Your task to perform on an android device: delete a single message in the gmail app Image 0: 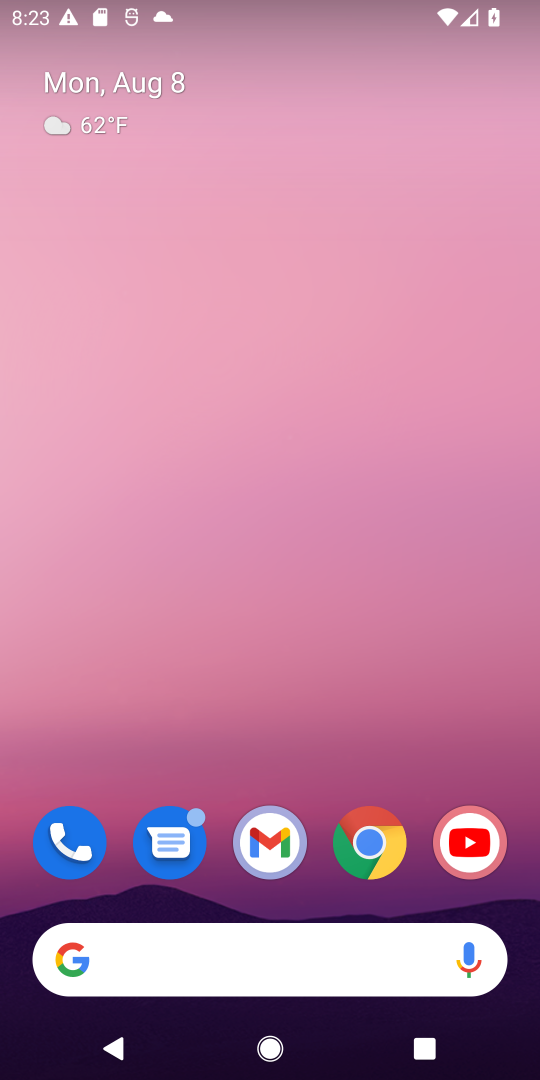
Step 0: drag from (309, 746) to (411, 0)
Your task to perform on an android device: delete a single message in the gmail app Image 1: 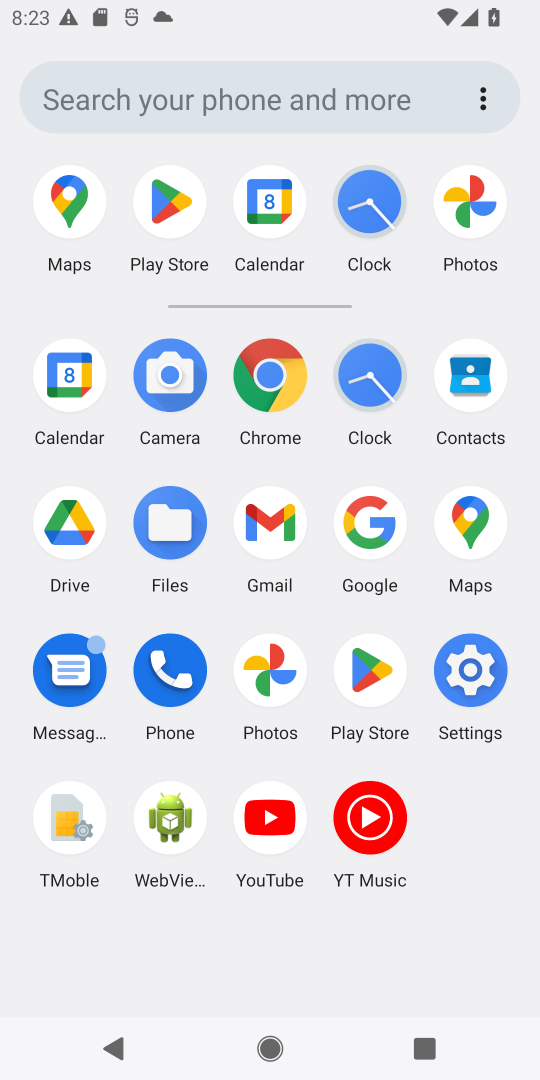
Step 1: click (270, 519)
Your task to perform on an android device: delete a single message in the gmail app Image 2: 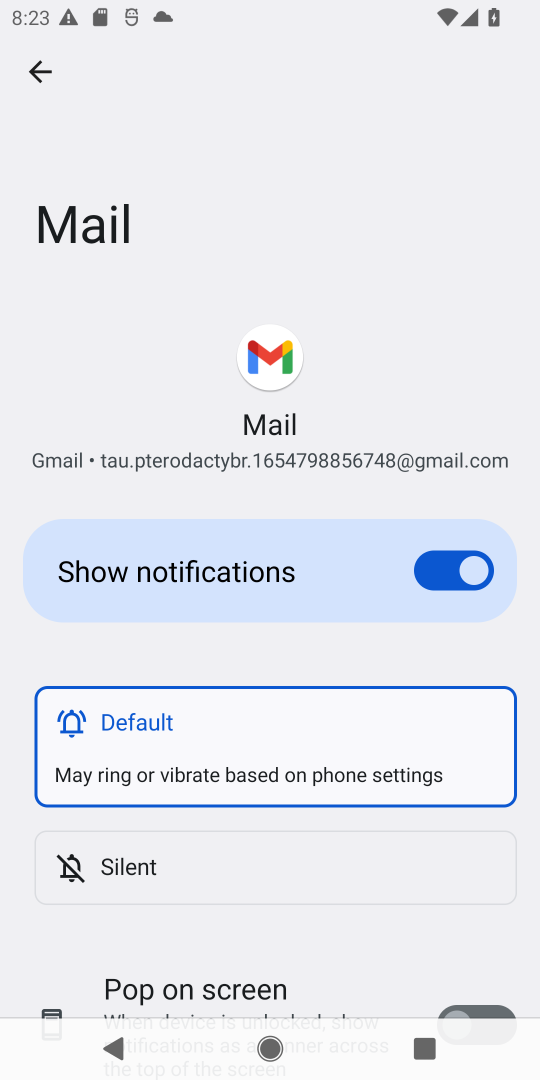
Step 2: click (34, 63)
Your task to perform on an android device: delete a single message in the gmail app Image 3: 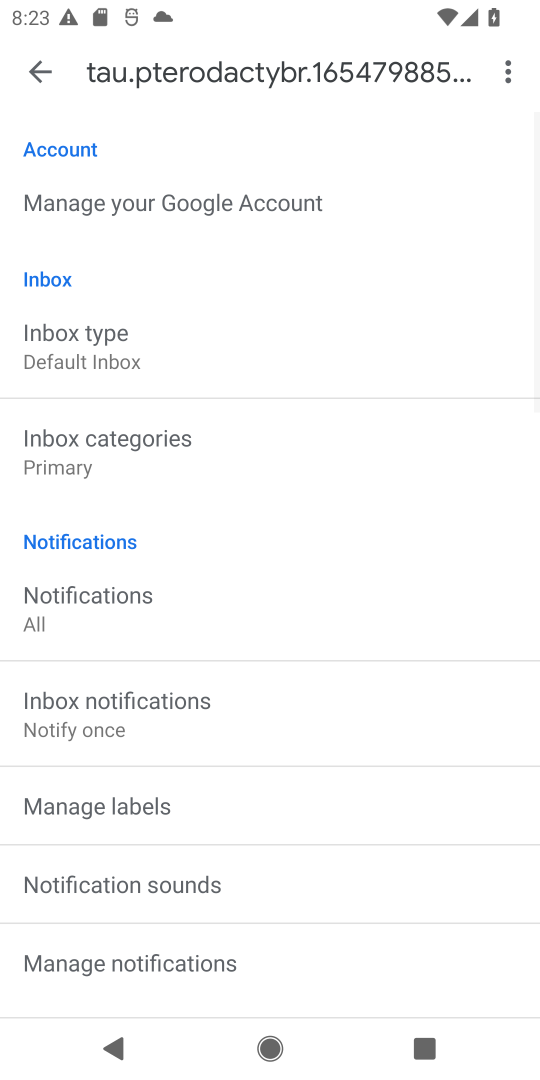
Step 3: click (34, 63)
Your task to perform on an android device: delete a single message in the gmail app Image 4: 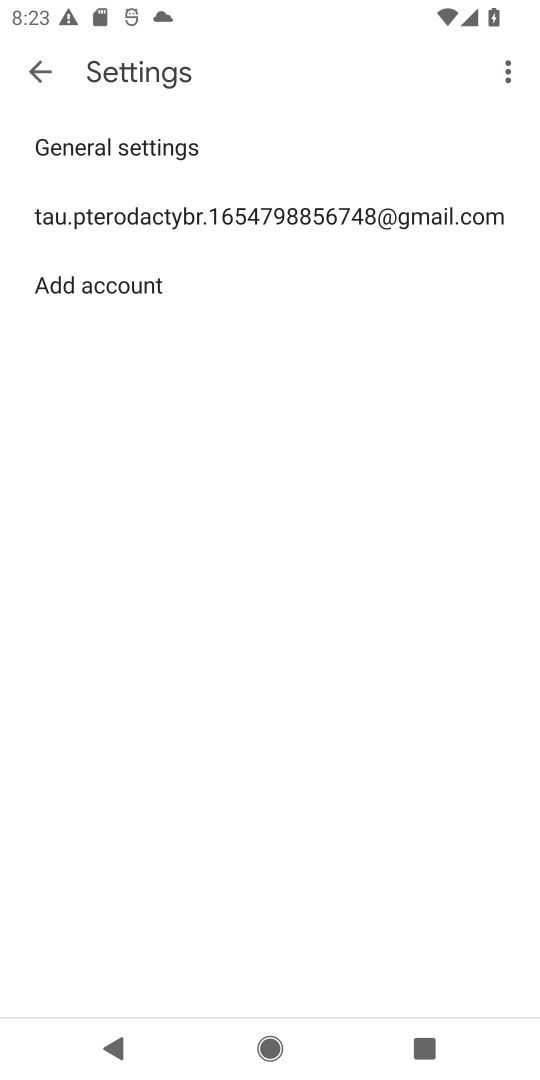
Step 4: click (34, 63)
Your task to perform on an android device: delete a single message in the gmail app Image 5: 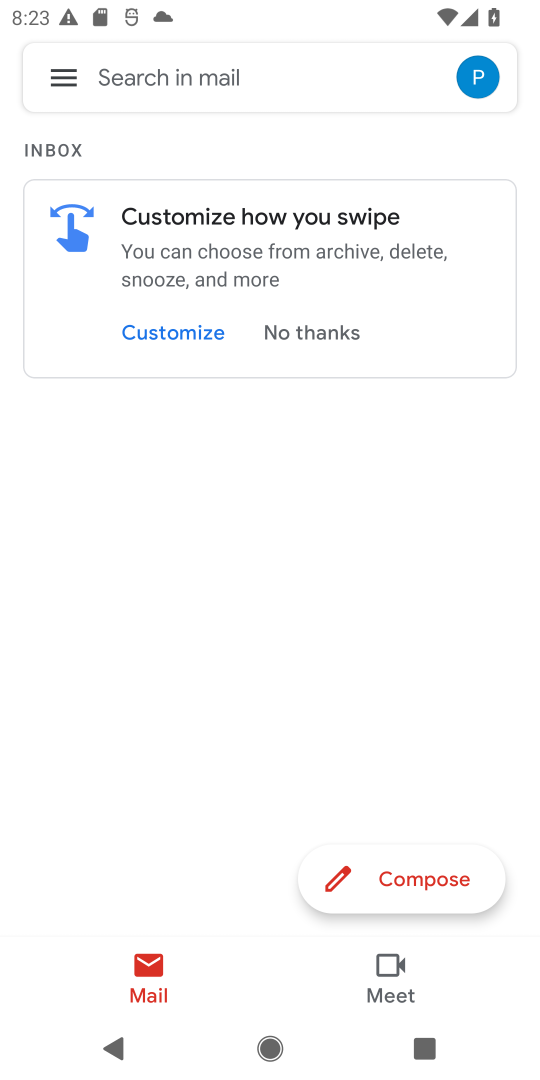
Step 5: click (63, 63)
Your task to perform on an android device: delete a single message in the gmail app Image 6: 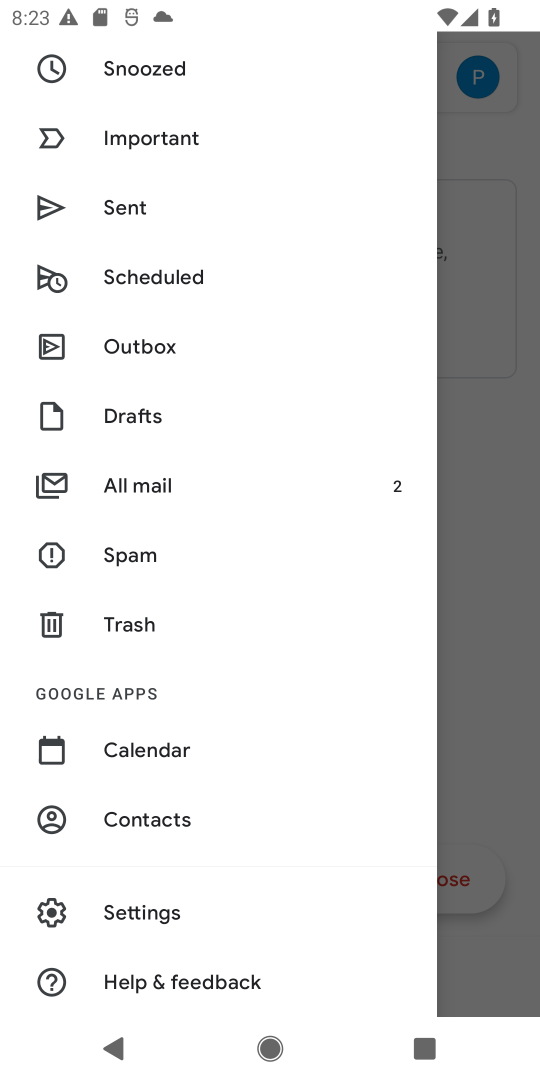
Step 6: click (171, 481)
Your task to perform on an android device: delete a single message in the gmail app Image 7: 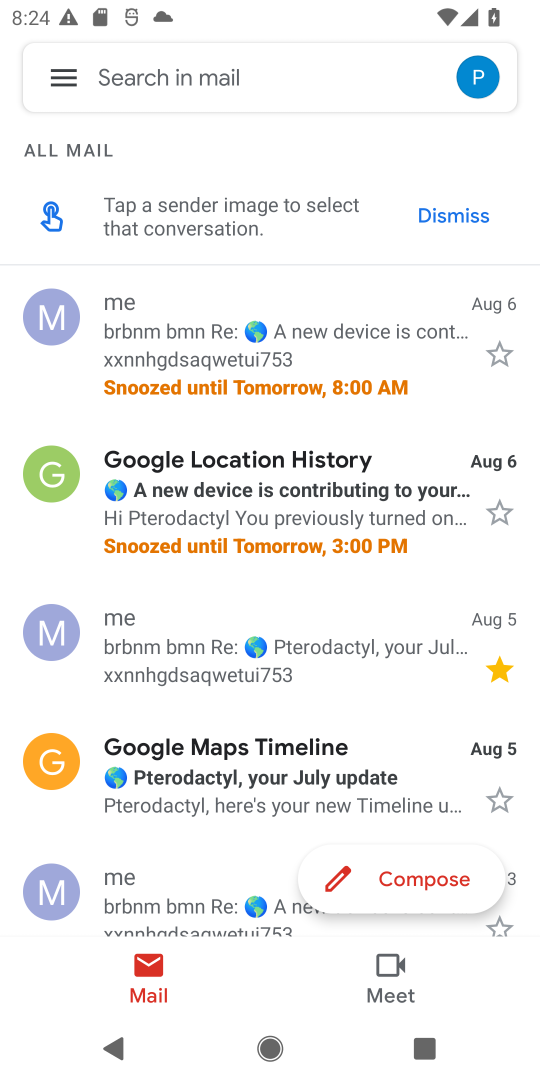
Step 7: drag from (223, 395) to (248, 52)
Your task to perform on an android device: delete a single message in the gmail app Image 8: 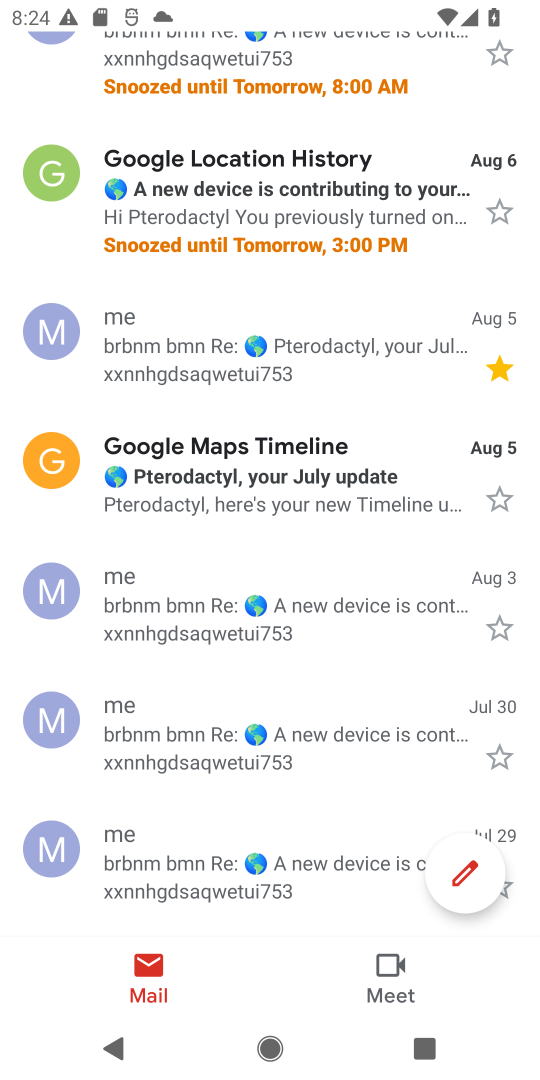
Step 8: click (63, 849)
Your task to perform on an android device: delete a single message in the gmail app Image 9: 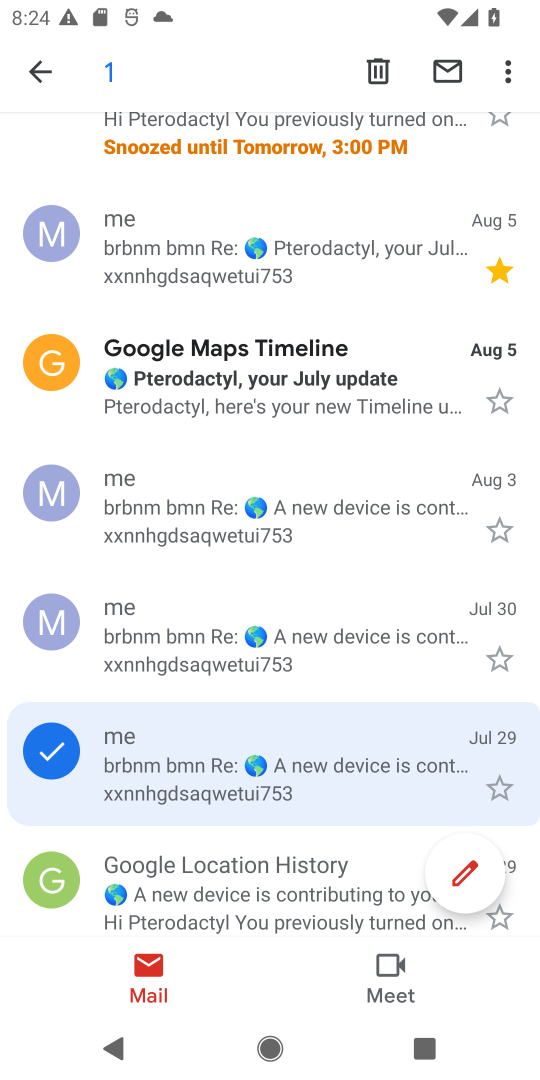
Step 9: click (383, 69)
Your task to perform on an android device: delete a single message in the gmail app Image 10: 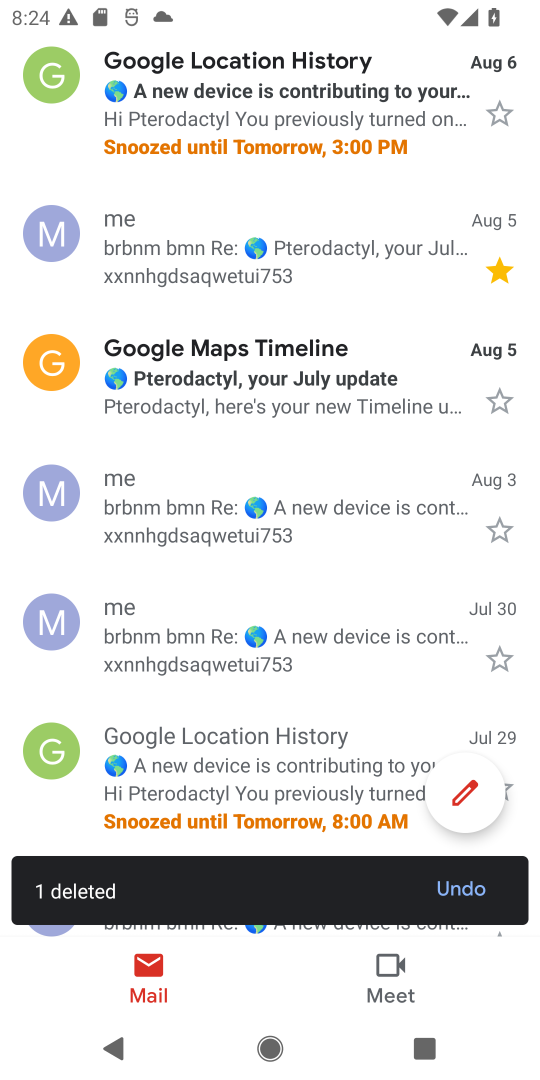
Step 10: task complete